Your task to perform on an android device: change notifications settings Image 0: 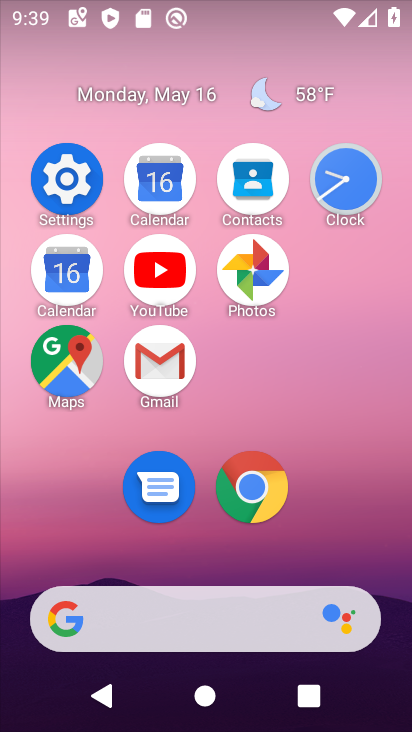
Step 0: click (86, 165)
Your task to perform on an android device: change notifications settings Image 1: 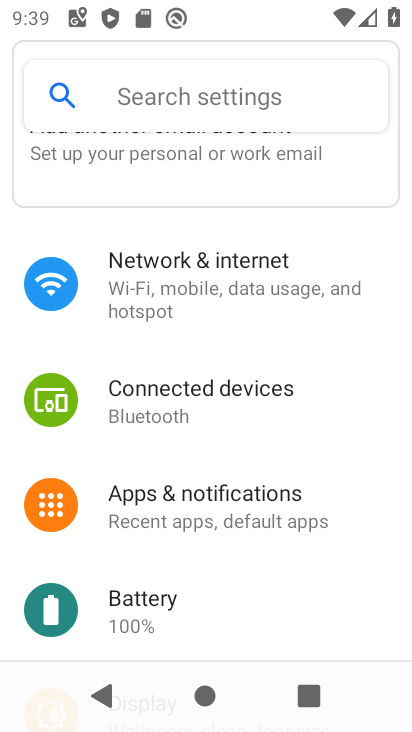
Step 1: click (219, 525)
Your task to perform on an android device: change notifications settings Image 2: 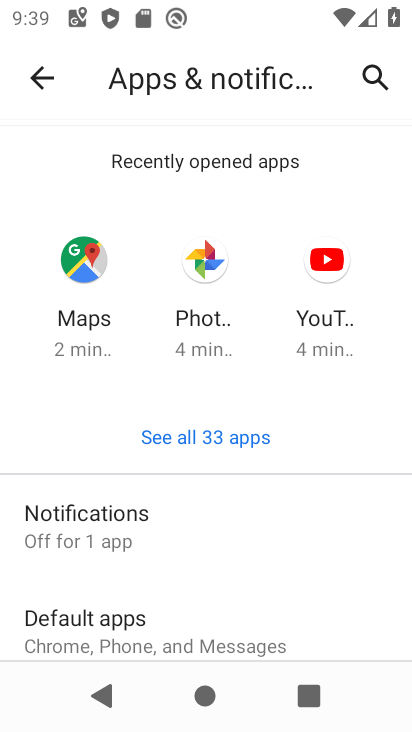
Step 2: click (193, 506)
Your task to perform on an android device: change notifications settings Image 3: 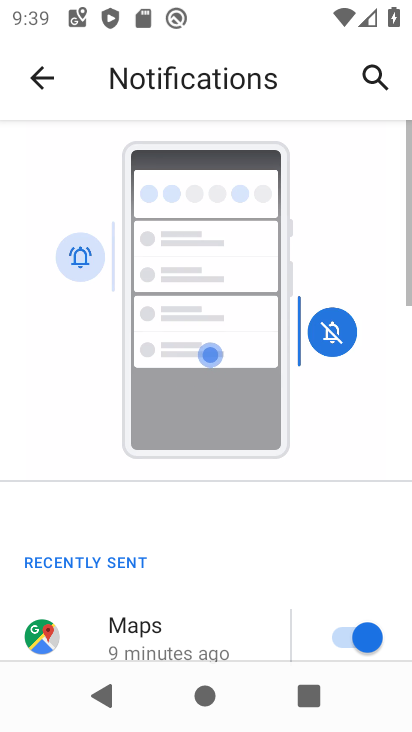
Step 3: drag from (257, 561) to (310, 45)
Your task to perform on an android device: change notifications settings Image 4: 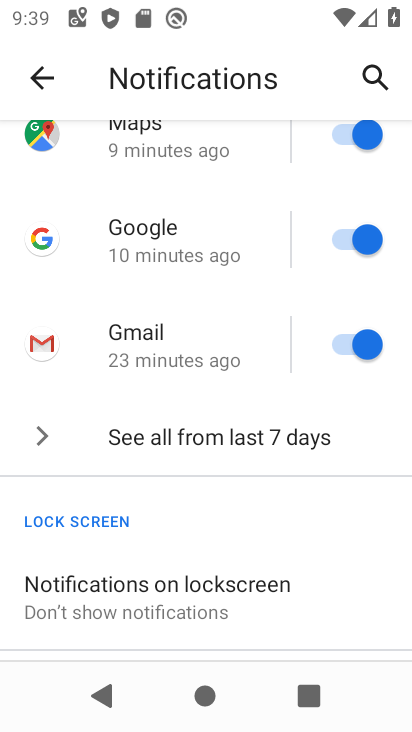
Step 4: drag from (265, 544) to (313, 34)
Your task to perform on an android device: change notifications settings Image 5: 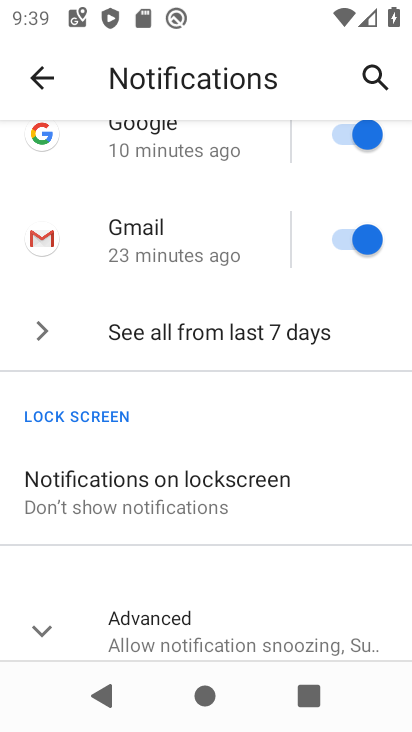
Step 5: drag from (191, 496) to (239, 100)
Your task to perform on an android device: change notifications settings Image 6: 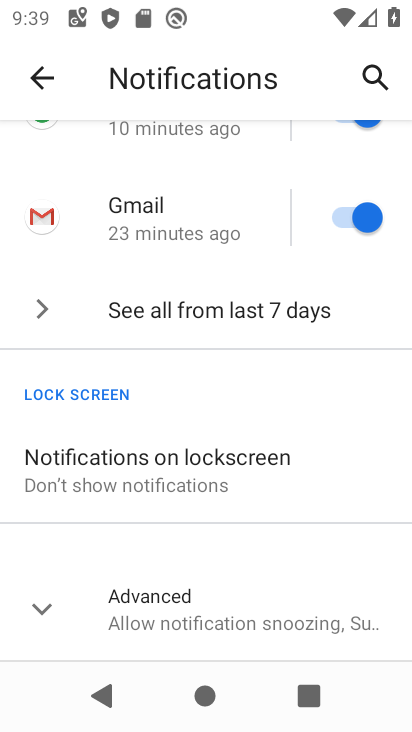
Step 6: drag from (290, 572) to (346, 70)
Your task to perform on an android device: change notifications settings Image 7: 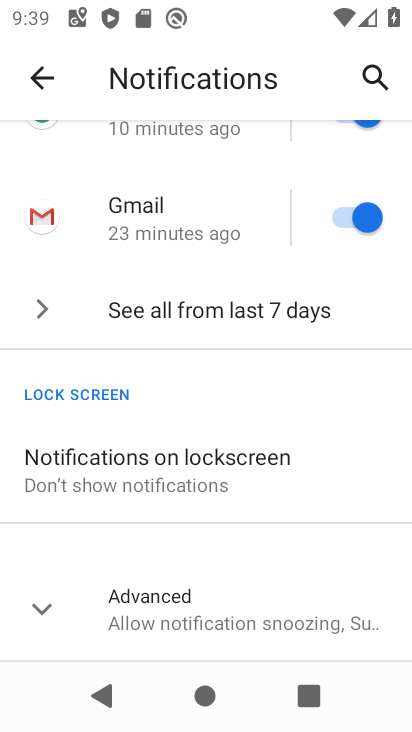
Step 7: click (224, 579)
Your task to perform on an android device: change notifications settings Image 8: 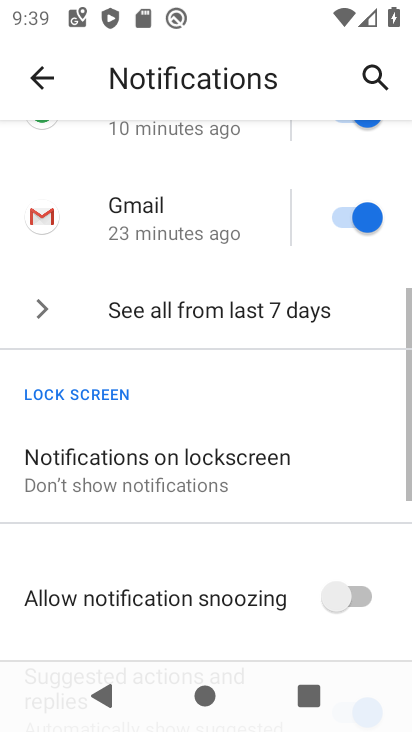
Step 8: drag from (219, 548) to (267, 3)
Your task to perform on an android device: change notifications settings Image 9: 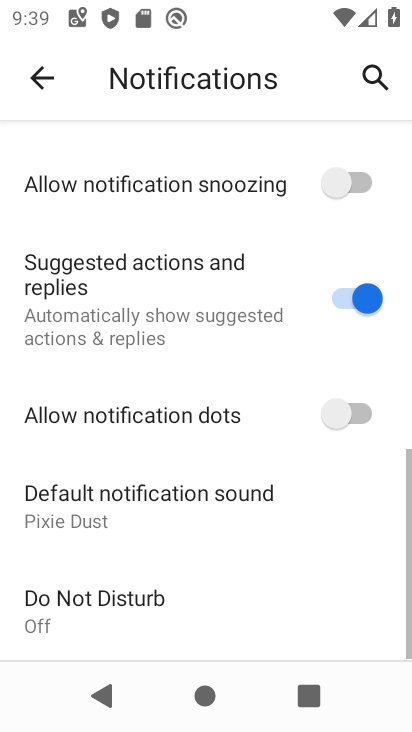
Step 9: click (346, 178)
Your task to perform on an android device: change notifications settings Image 10: 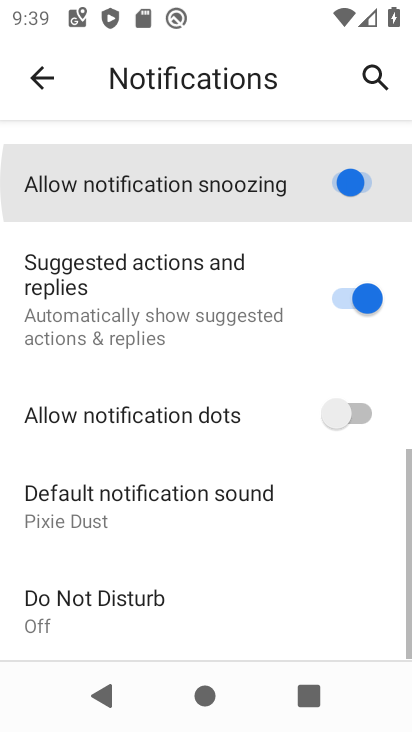
Step 10: click (373, 298)
Your task to perform on an android device: change notifications settings Image 11: 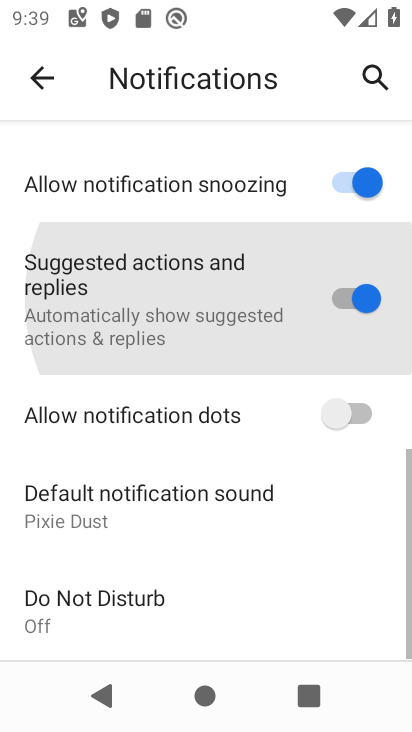
Step 11: click (344, 428)
Your task to perform on an android device: change notifications settings Image 12: 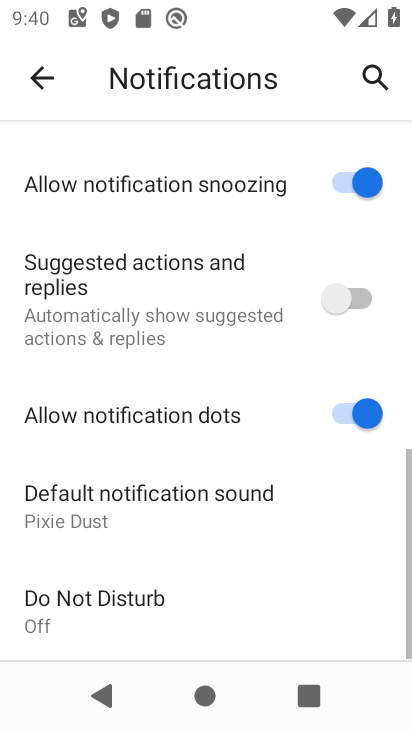
Step 12: task complete